Your task to perform on an android device: Toggle the flashlight Image 0: 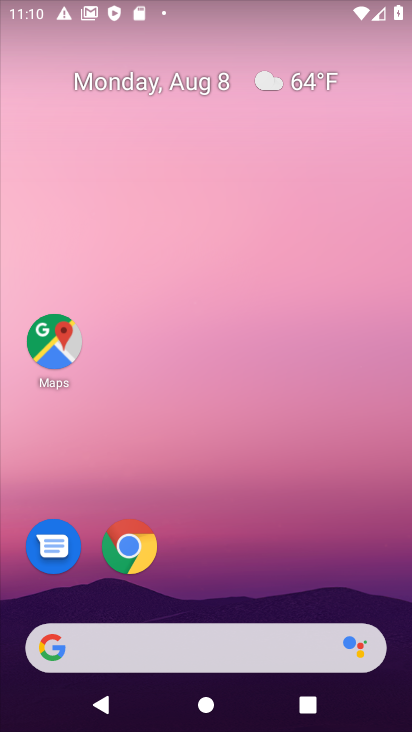
Step 0: press home button
Your task to perform on an android device: Toggle the flashlight Image 1: 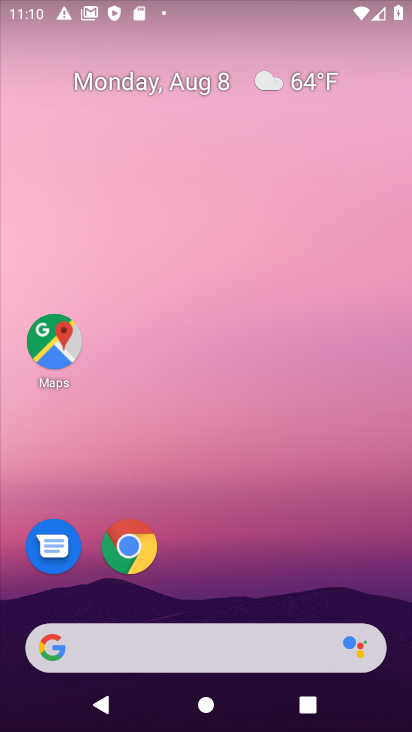
Step 1: drag from (214, 601) to (187, 47)
Your task to perform on an android device: Toggle the flashlight Image 2: 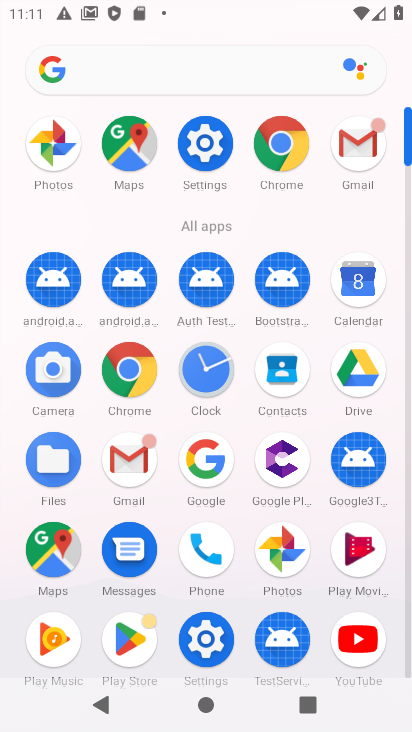
Step 2: click (202, 136)
Your task to perform on an android device: Toggle the flashlight Image 3: 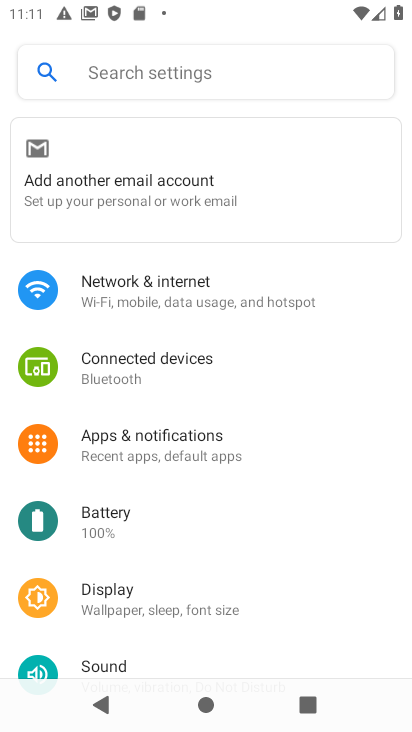
Step 3: click (141, 72)
Your task to perform on an android device: Toggle the flashlight Image 4: 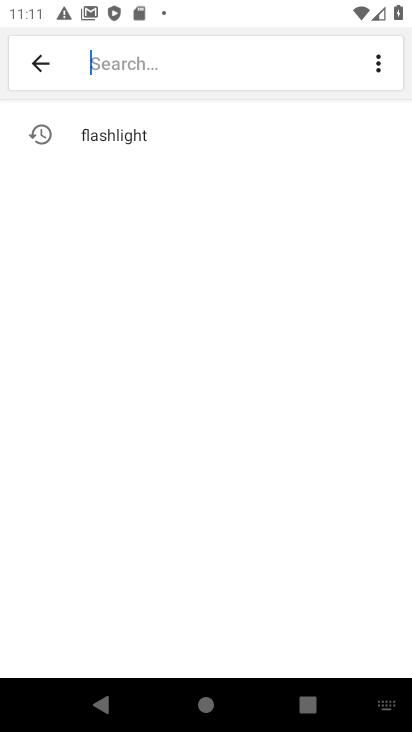
Step 4: type "flashlight"
Your task to perform on an android device: Toggle the flashlight Image 5: 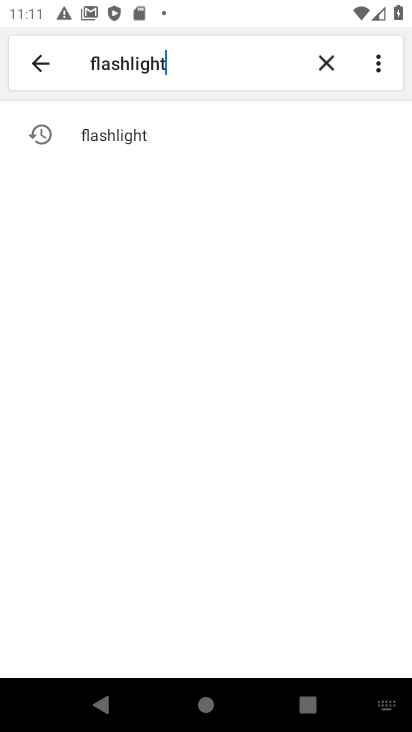
Step 5: click (133, 131)
Your task to perform on an android device: Toggle the flashlight Image 6: 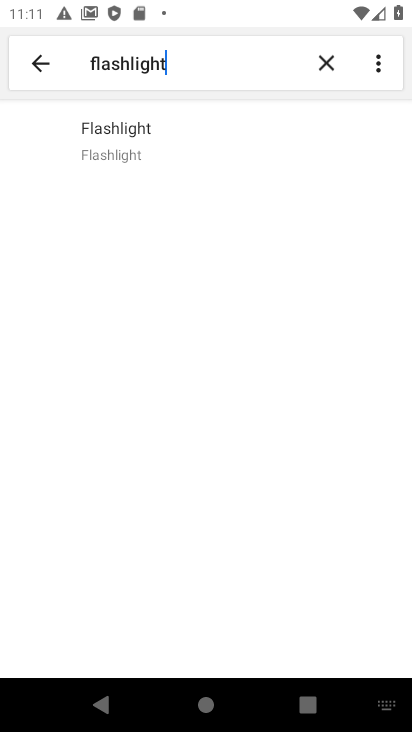
Step 6: click (137, 136)
Your task to perform on an android device: Toggle the flashlight Image 7: 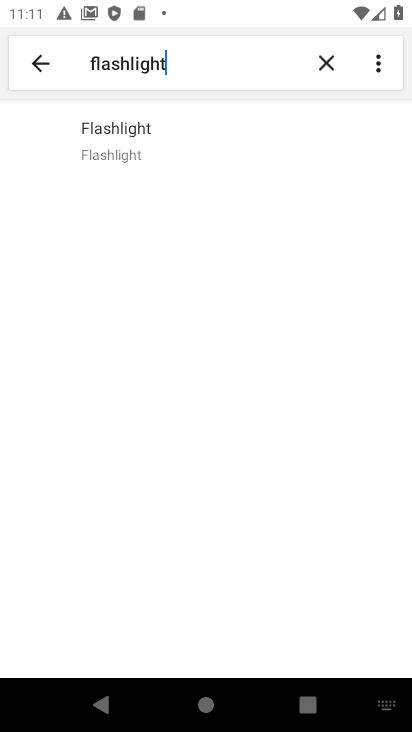
Step 7: click (152, 147)
Your task to perform on an android device: Toggle the flashlight Image 8: 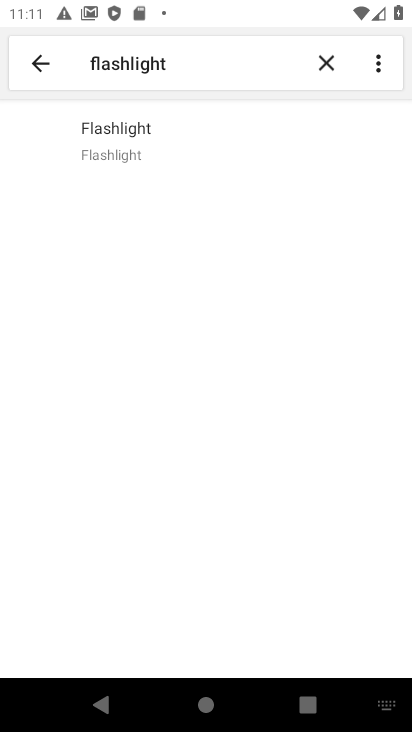
Step 8: click (146, 155)
Your task to perform on an android device: Toggle the flashlight Image 9: 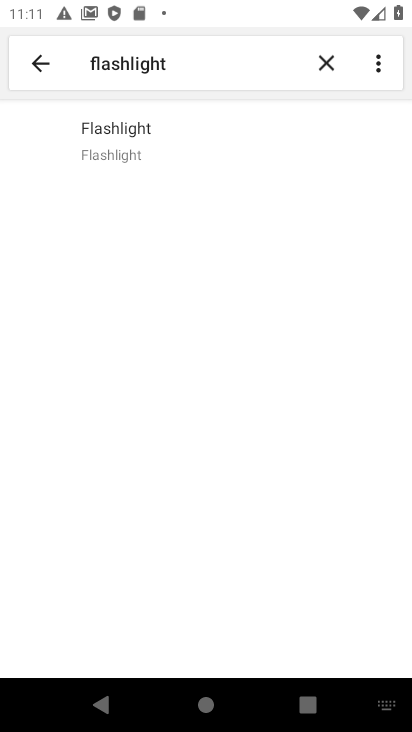
Step 9: task complete